Your task to perform on an android device: open chrome and create a bookmark for the current page Image 0: 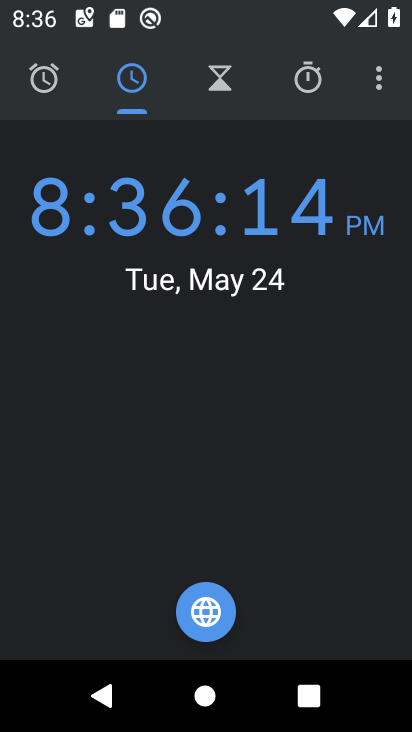
Step 0: press home button
Your task to perform on an android device: open chrome and create a bookmark for the current page Image 1: 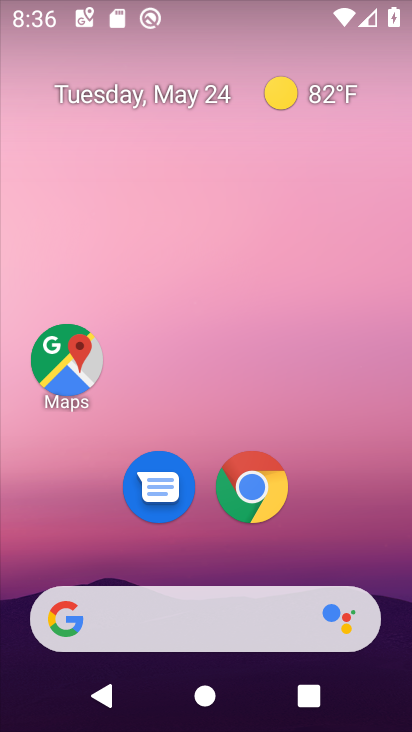
Step 1: drag from (364, 542) to (361, 192)
Your task to perform on an android device: open chrome and create a bookmark for the current page Image 2: 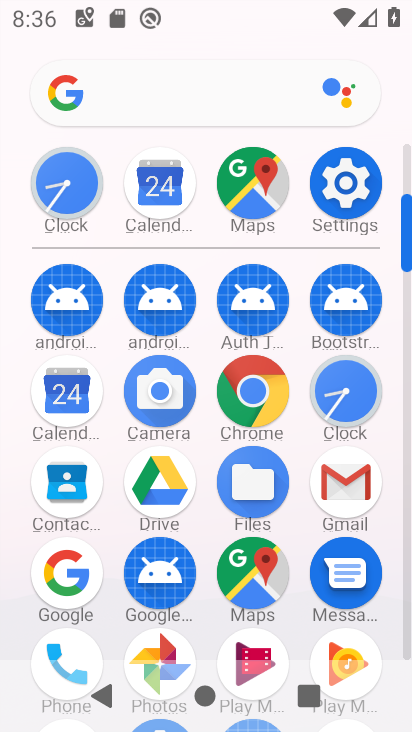
Step 2: click (264, 407)
Your task to perform on an android device: open chrome and create a bookmark for the current page Image 3: 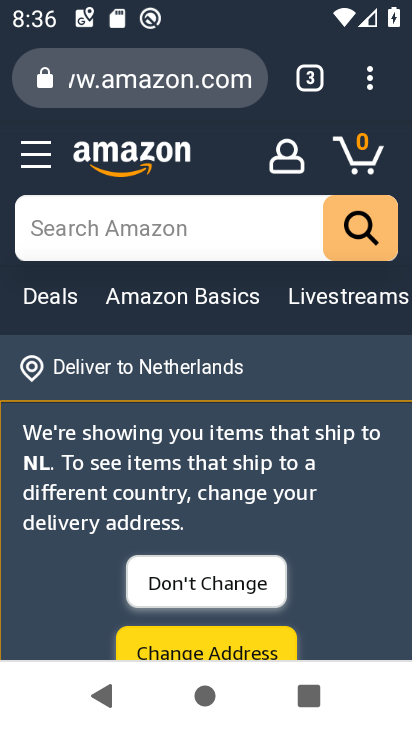
Step 3: task complete